Your task to perform on an android device: Open the calendar app, open the side menu, and click the "Day" option Image 0: 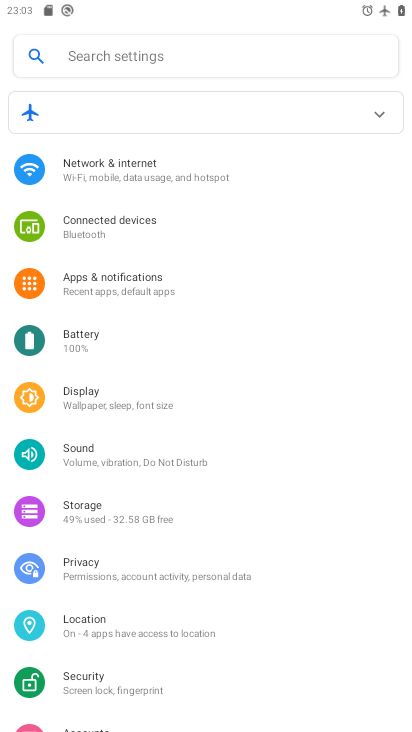
Step 0: press home button
Your task to perform on an android device: Open the calendar app, open the side menu, and click the "Day" option Image 1: 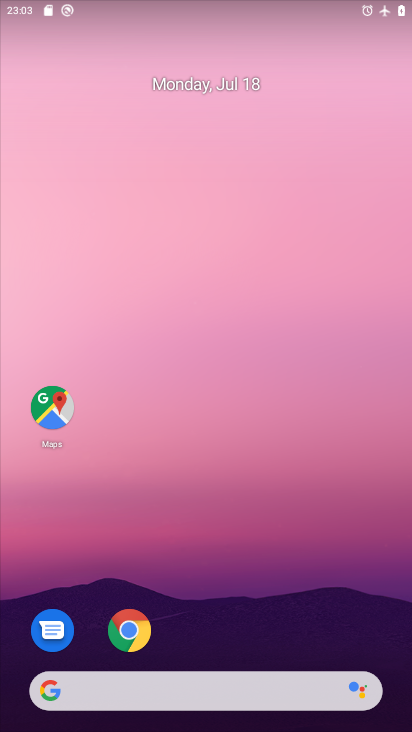
Step 1: drag from (175, 623) to (180, 232)
Your task to perform on an android device: Open the calendar app, open the side menu, and click the "Day" option Image 2: 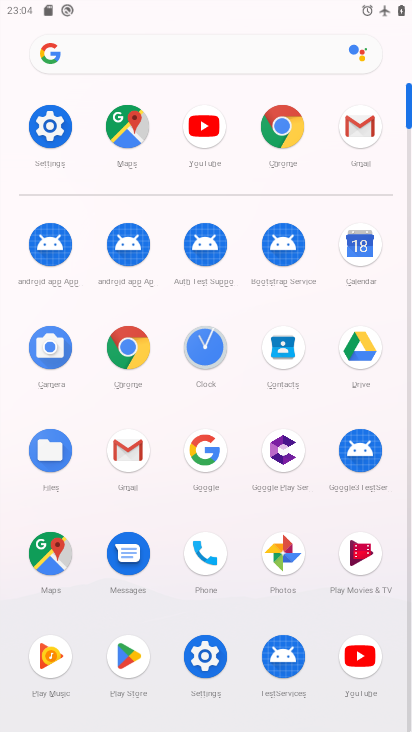
Step 2: click (352, 241)
Your task to perform on an android device: Open the calendar app, open the side menu, and click the "Day" option Image 3: 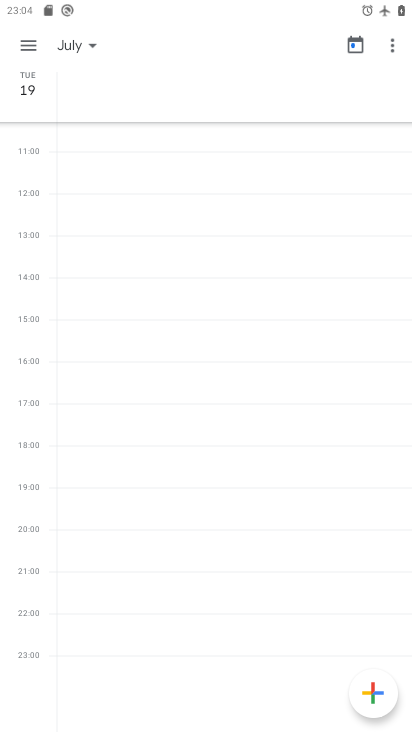
Step 3: click (32, 39)
Your task to perform on an android device: Open the calendar app, open the side menu, and click the "Day" option Image 4: 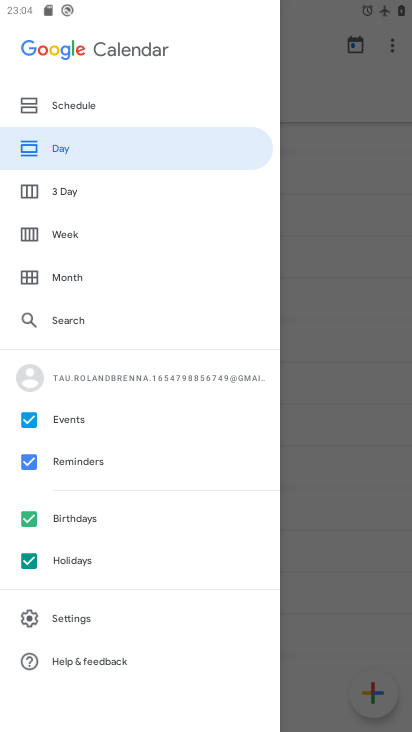
Step 4: click (90, 156)
Your task to perform on an android device: Open the calendar app, open the side menu, and click the "Day" option Image 5: 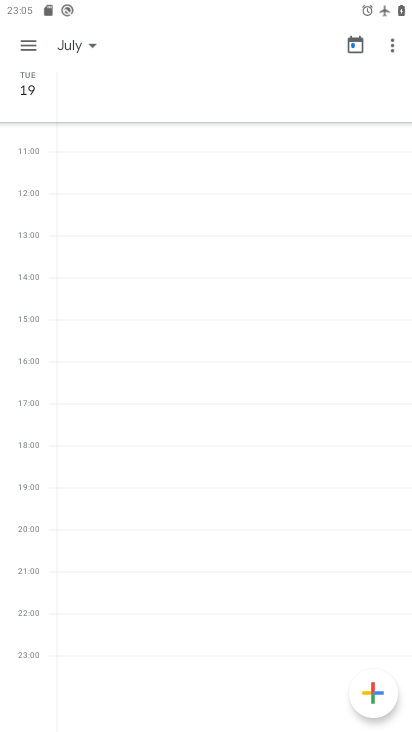
Step 5: task complete